Your task to perform on an android device: What is the news today? Image 0: 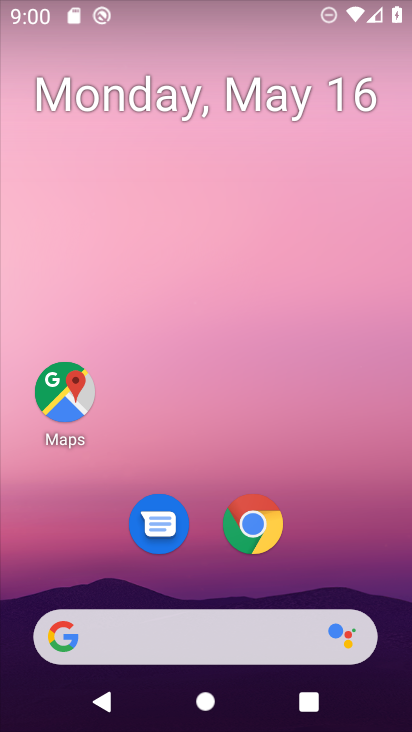
Step 0: click (184, 644)
Your task to perform on an android device: What is the news today? Image 1: 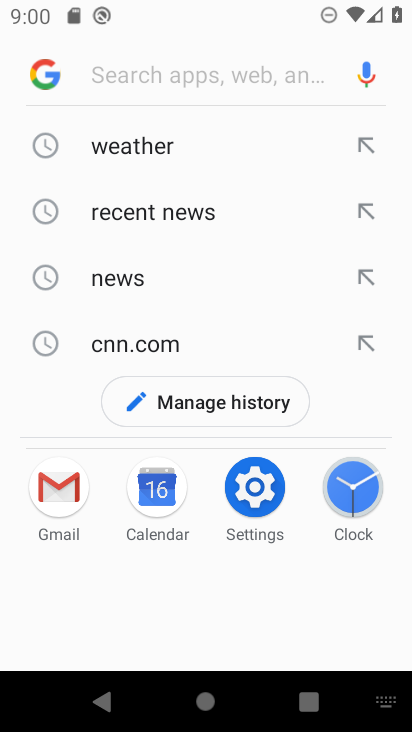
Step 1: click (107, 265)
Your task to perform on an android device: What is the news today? Image 2: 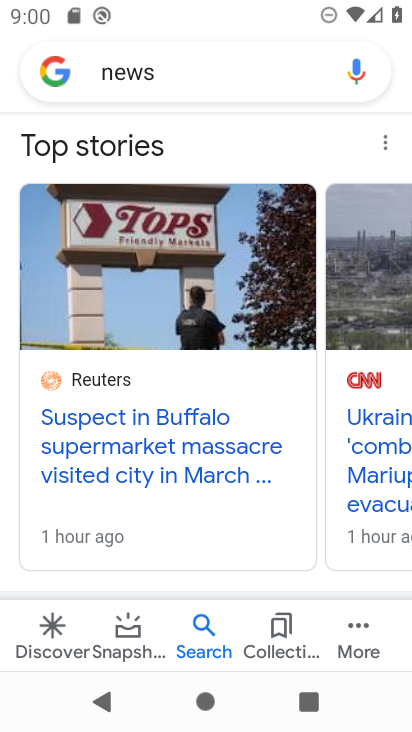
Step 2: drag from (236, 138) to (211, 383)
Your task to perform on an android device: What is the news today? Image 3: 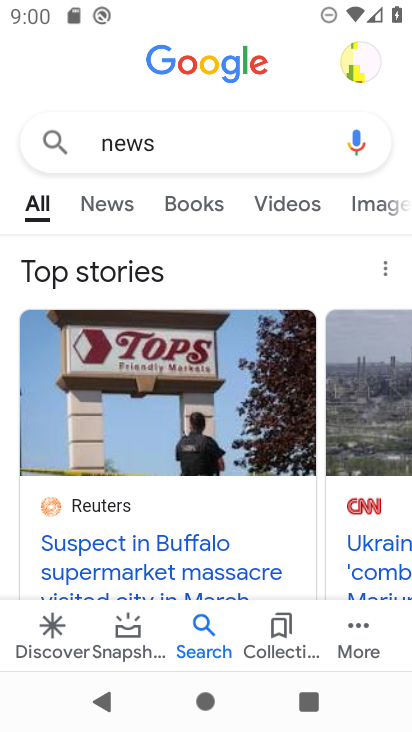
Step 3: click (102, 193)
Your task to perform on an android device: What is the news today? Image 4: 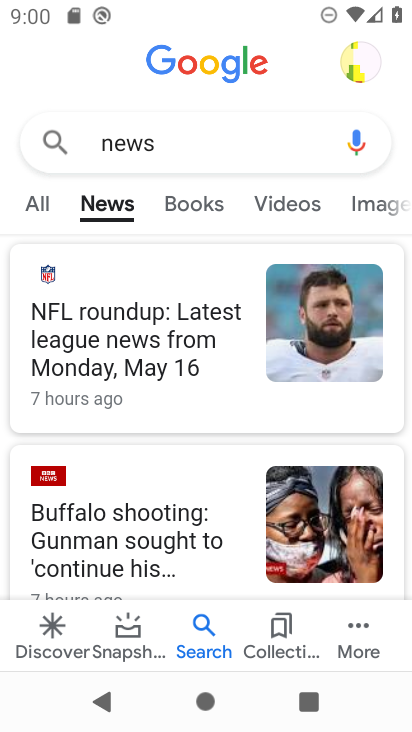
Step 4: task complete